Your task to perform on an android device: empty trash in the gmail app Image 0: 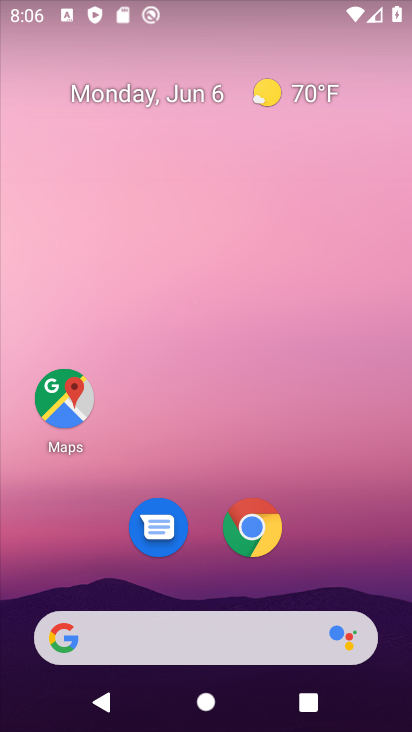
Step 0: drag from (222, 562) to (263, 186)
Your task to perform on an android device: empty trash in the gmail app Image 1: 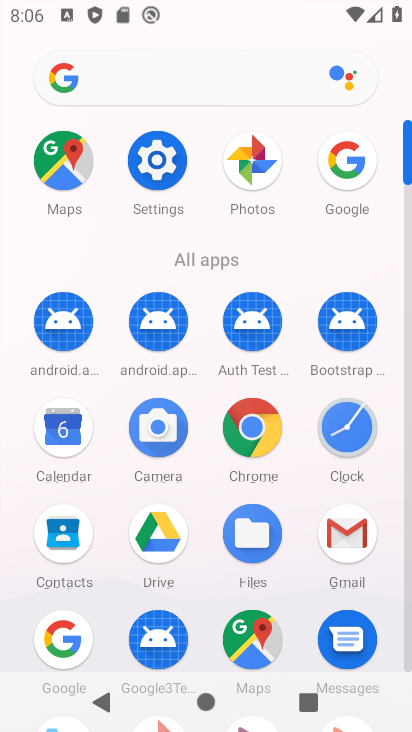
Step 1: click (345, 548)
Your task to perform on an android device: empty trash in the gmail app Image 2: 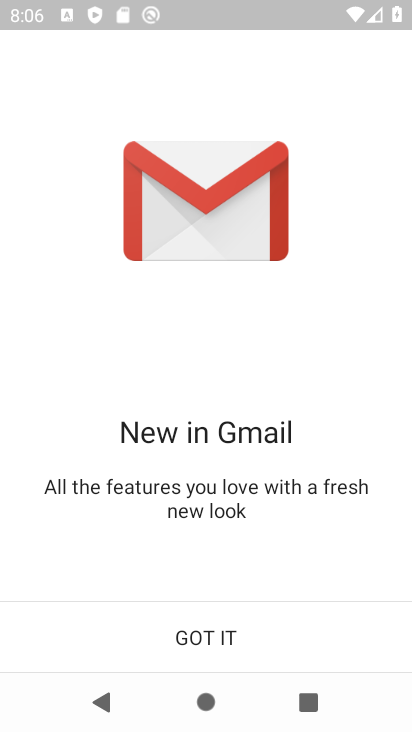
Step 2: click (250, 651)
Your task to perform on an android device: empty trash in the gmail app Image 3: 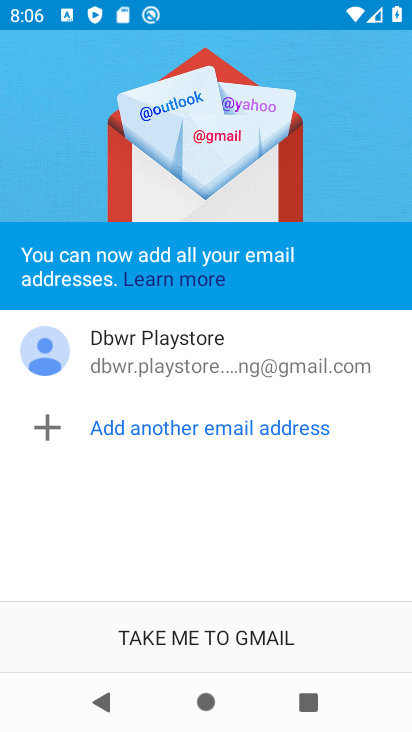
Step 3: click (250, 651)
Your task to perform on an android device: empty trash in the gmail app Image 4: 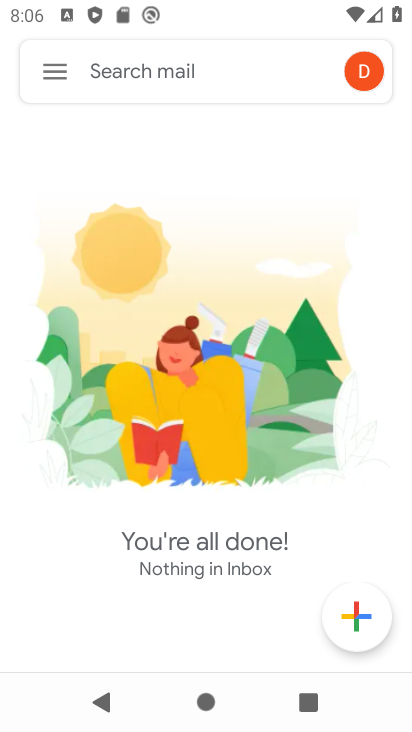
Step 4: click (57, 67)
Your task to perform on an android device: empty trash in the gmail app Image 5: 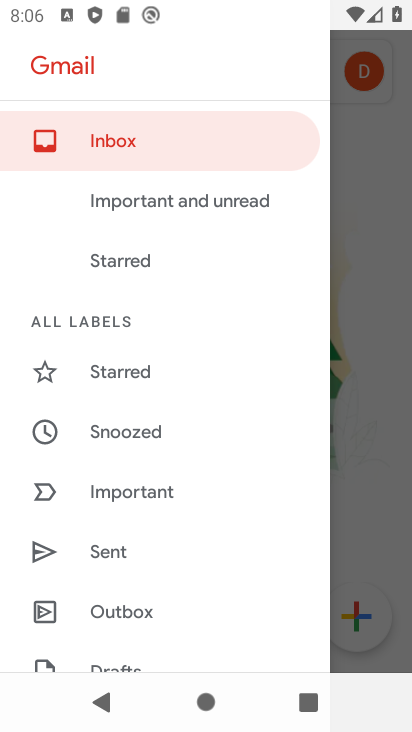
Step 5: drag from (194, 267) to (215, 150)
Your task to perform on an android device: empty trash in the gmail app Image 6: 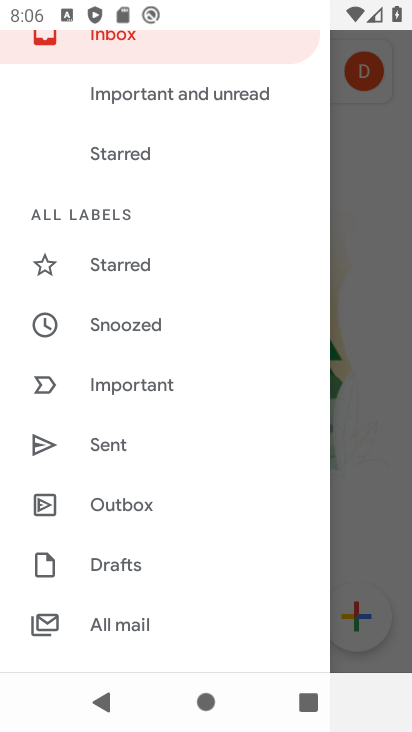
Step 6: drag from (120, 575) to (201, 168)
Your task to perform on an android device: empty trash in the gmail app Image 7: 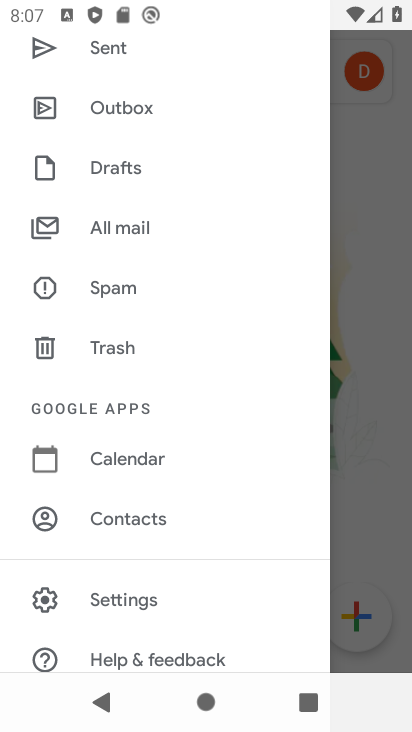
Step 7: click (137, 348)
Your task to perform on an android device: empty trash in the gmail app Image 8: 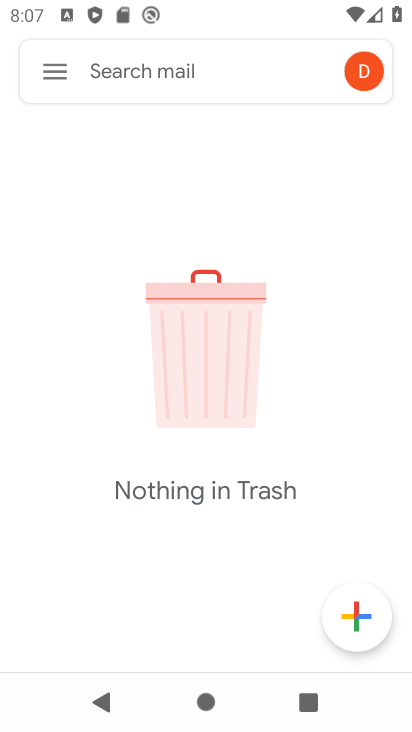
Step 8: task complete